Your task to perform on an android device: toggle pop-ups in chrome Image 0: 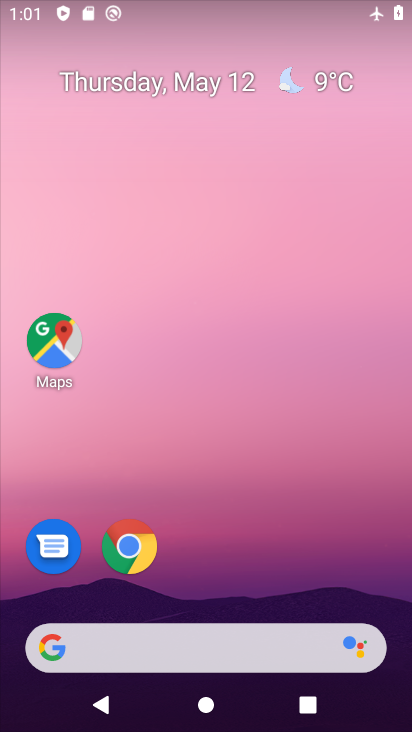
Step 0: click (329, 178)
Your task to perform on an android device: toggle pop-ups in chrome Image 1: 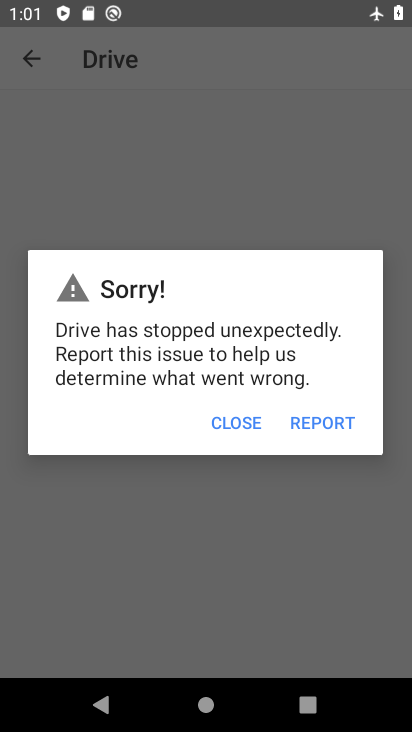
Step 1: press home button
Your task to perform on an android device: toggle pop-ups in chrome Image 2: 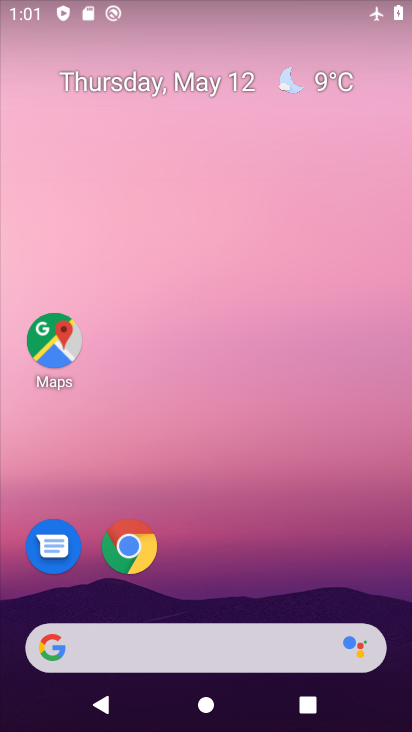
Step 2: drag from (235, 664) to (321, 171)
Your task to perform on an android device: toggle pop-ups in chrome Image 3: 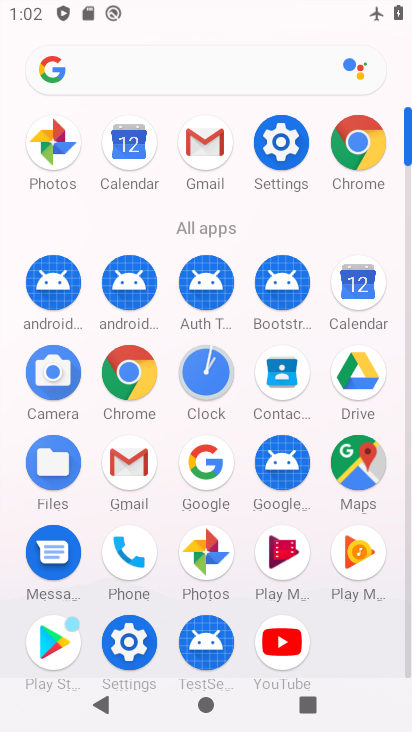
Step 3: click (367, 152)
Your task to perform on an android device: toggle pop-ups in chrome Image 4: 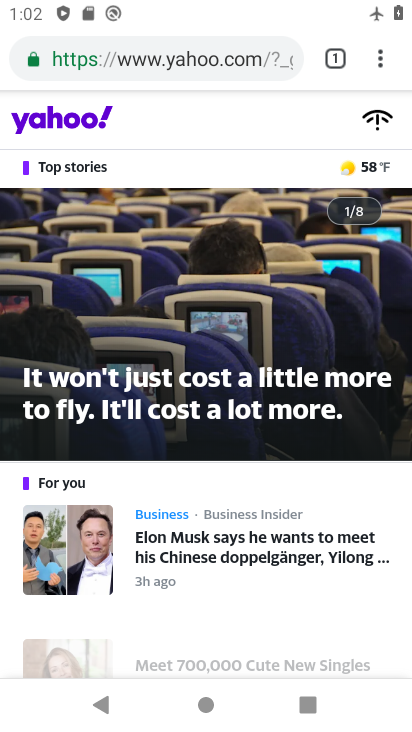
Step 4: click (377, 62)
Your task to perform on an android device: toggle pop-ups in chrome Image 5: 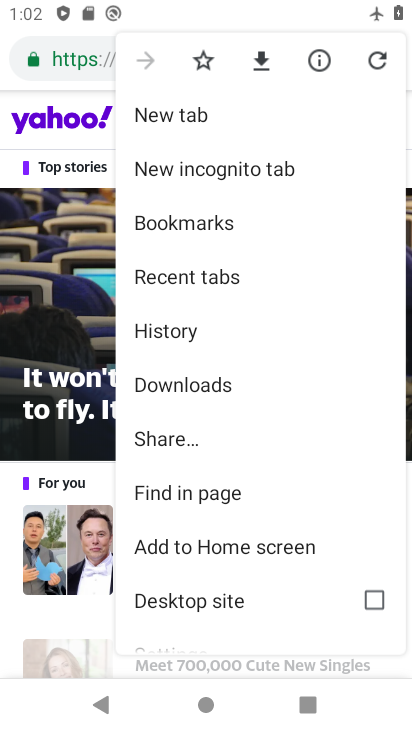
Step 5: drag from (212, 552) to (327, 343)
Your task to perform on an android device: toggle pop-ups in chrome Image 6: 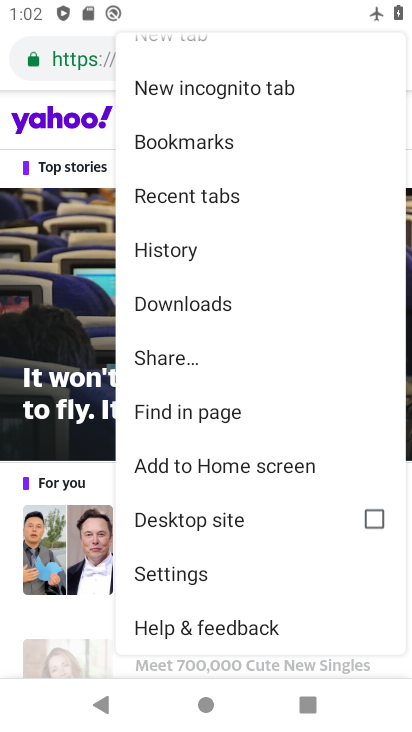
Step 6: click (199, 571)
Your task to perform on an android device: toggle pop-ups in chrome Image 7: 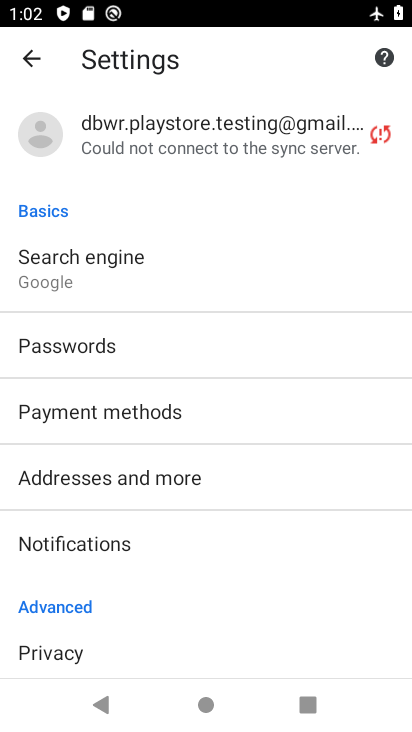
Step 7: drag from (135, 611) to (199, 415)
Your task to perform on an android device: toggle pop-ups in chrome Image 8: 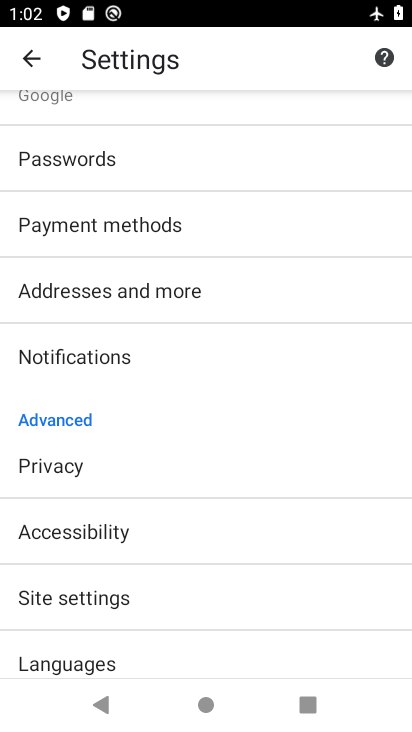
Step 8: click (101, 598)
Your task to perform on an android device: toggle pop-ups in chrome Image 9: 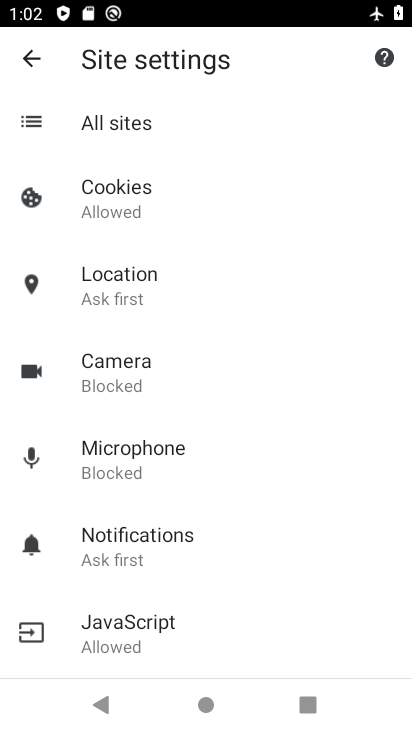
Step 9: drag from (118, 615) to (200, 490)
Your task to perform on an android device: toggle pop-ups in chrome Image 10: 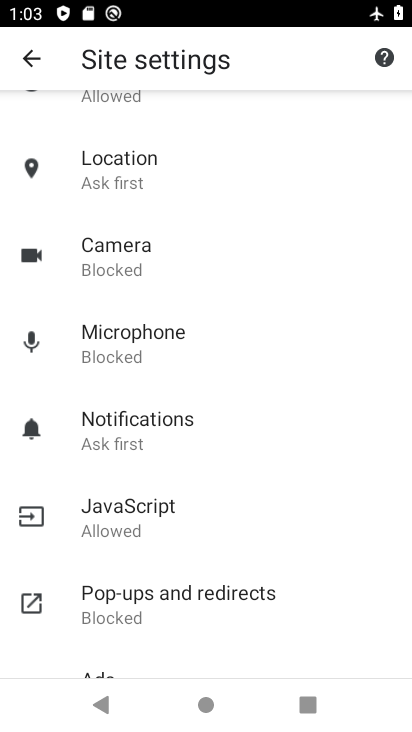
Step 10: click (123, 593)
Your task to perform on an android device: toggle pop-ups in chrome Image 11: 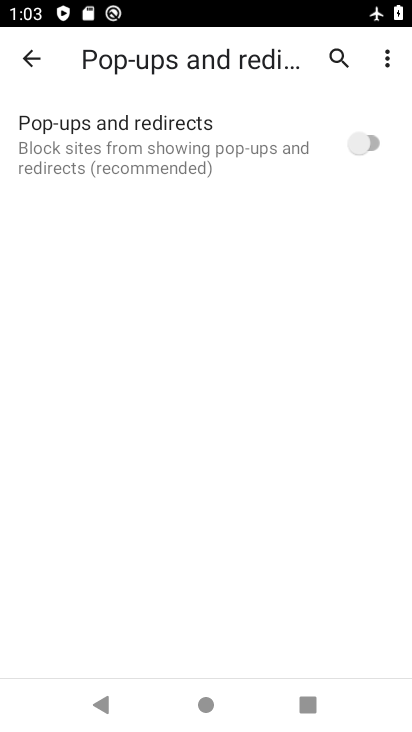
Step 11: task complete